Your task to perform on an android device: turn on bluetooth scan Image 0: 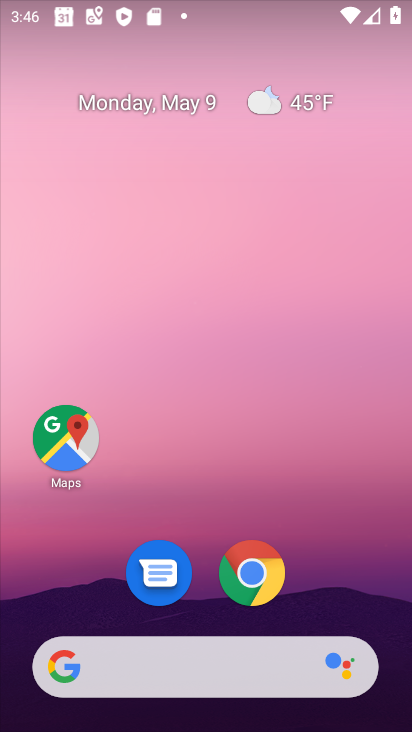
Step 0: drag from (372, 599) to (382, 38)
Your task to perform on an android device: turn on bluetooth scan Image 1: 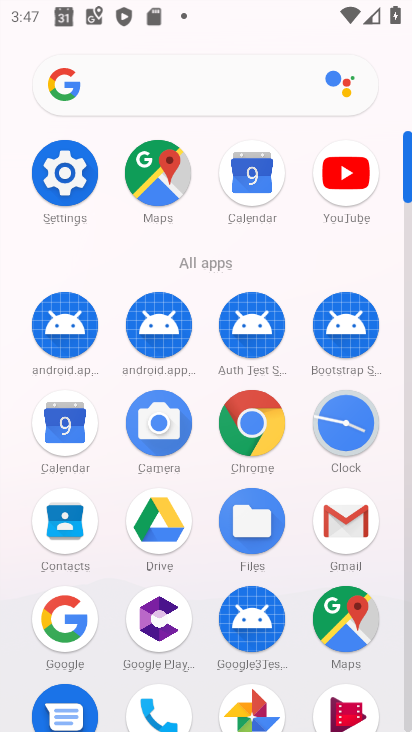
Step 1: click (68, 183)
Your task to perform on an android device: turn on bluetooth scan Image 2: 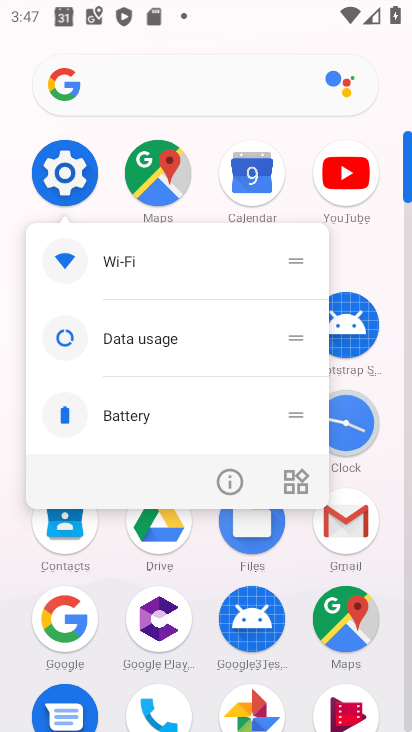
Step 2: click (68, 183)
Your task to perform on an android device: turn on bluetooth scan Image 3: 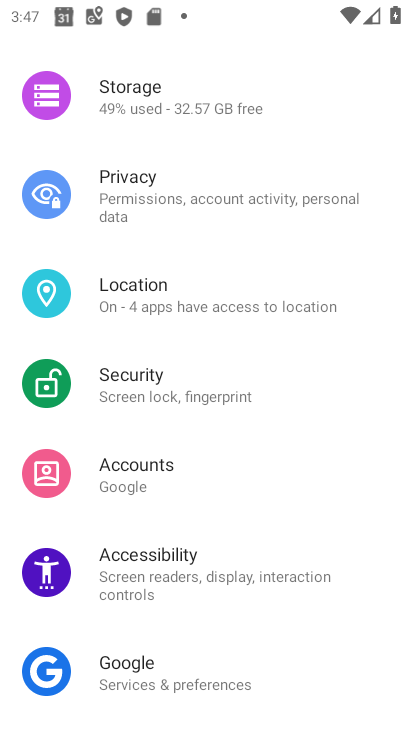
Step 3: click (161, 302)
Your task to perform on an android device: turn on bluetooth scan Image 4: 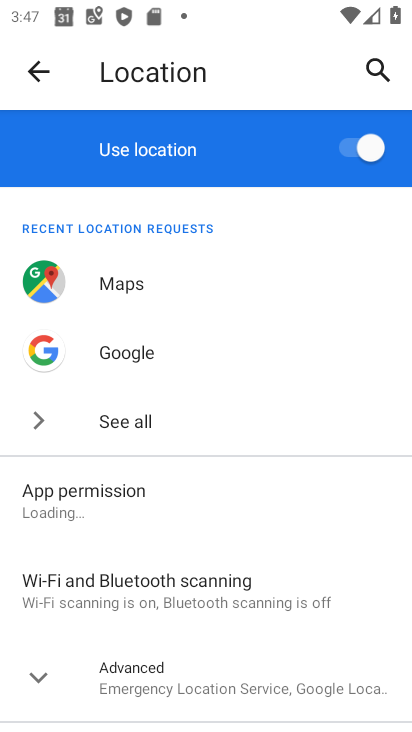
Step 4: click (130, 598)
Your task to perform on an android device: turn on bluetooth scan Image 5: 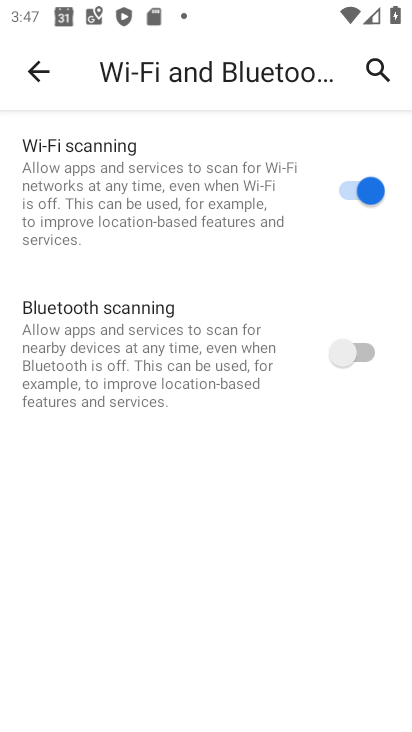
Step 5: click (349, 360)
Your task to perform on an android device: turn on bluetooth scan Image 6: 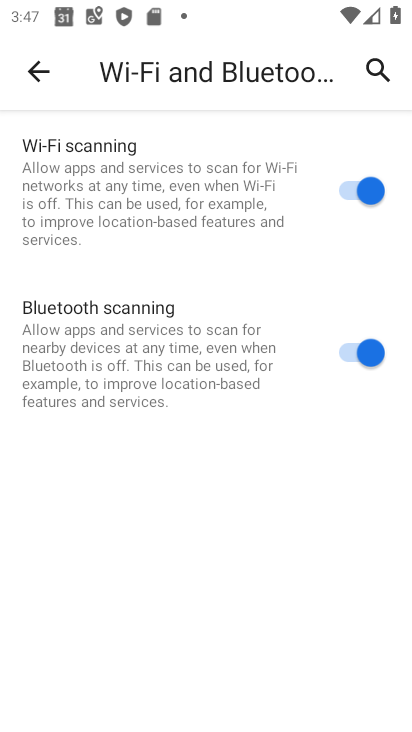
Step 6: task complete